Your task to perform on an android device: Open the web browser Image 0: 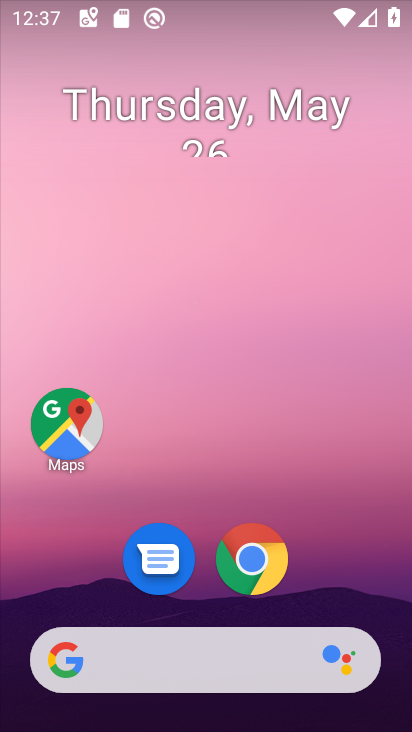
Step 0: press home button
Your task to perform on an android device: Open the web browser Image 1: 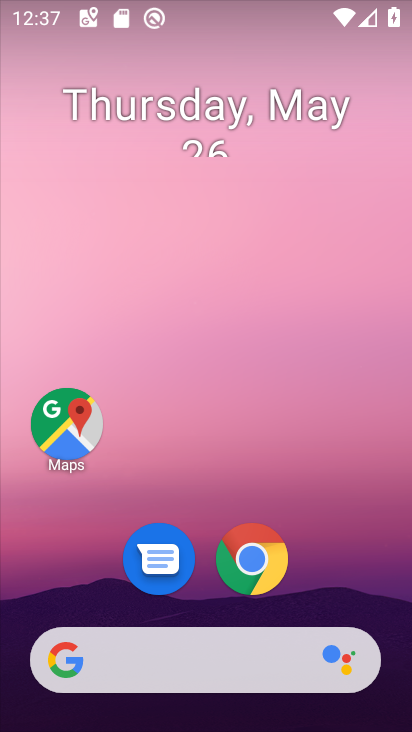
Step 1: click (64, 661)
Your task to perform on an android device: Open the web browser Image 2: 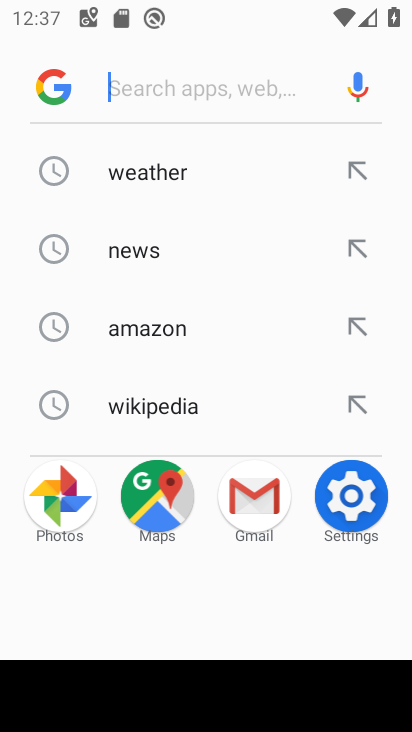
Step 2: task complete